Your task to perform on an android device: Find coffee shops on Maps Image 0: 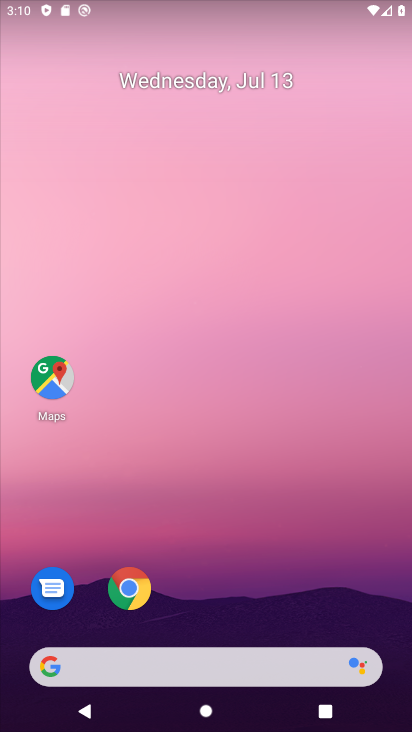
Step 0: drag from (167, 557) to (163, 102)
Your task to perform on an android device: Find coffee shops on Maps Image 1: 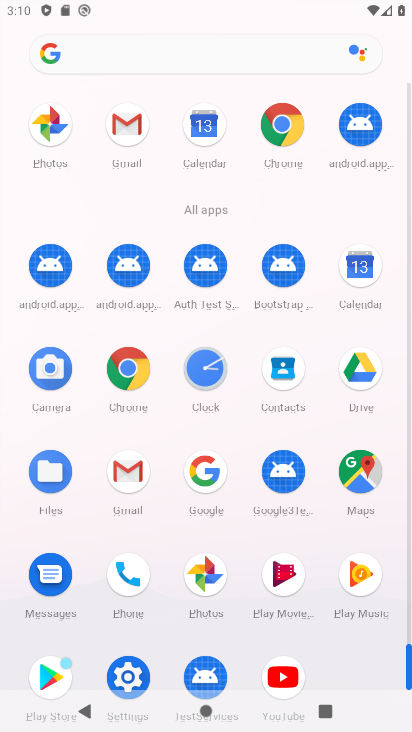
Step 1: click (372, 476)
Your task to perform on an android device: Find coffee shops on Maps Image 2: 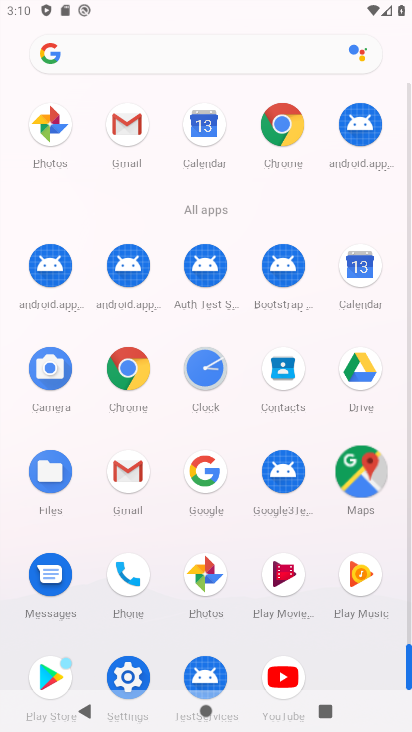
Step 2: click (372, 476)
Your task to perform on an android device: Find coffee shops on Maps Image 3: 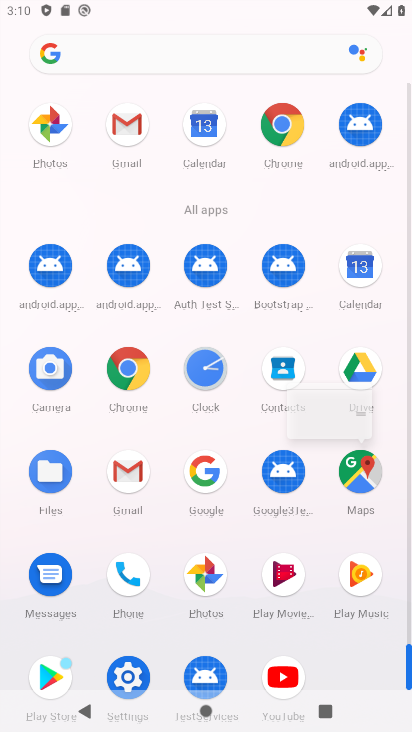
Step 3: click (372, 476)
Your task to perform on an android device: Find coffee shops on Maps Image 4: 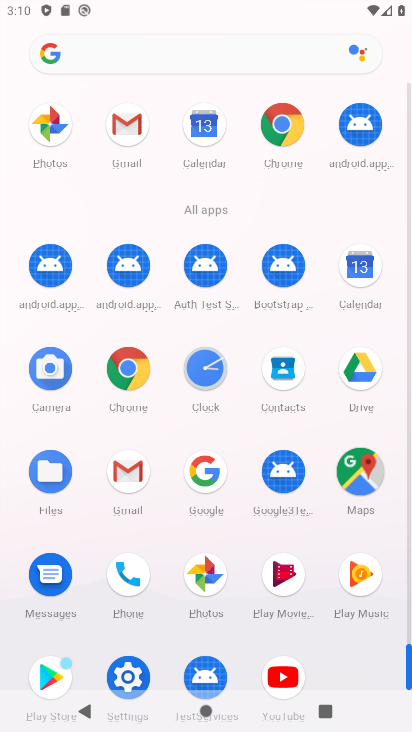
Step 4: click (372, 476)
Your task to perform on an android device: Find coffee shops on Maps Image 5: 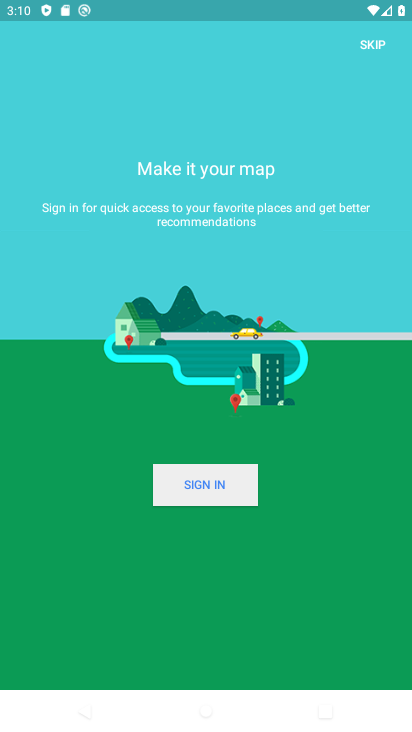
Step 5: click (359, 52)
Your task to perform on an android device: Find coffee shops on Maps Image 6: 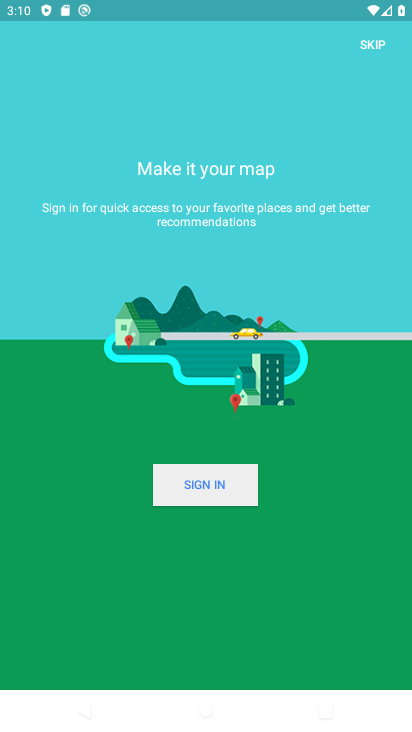
Step 6: click (363, 48)
Your task to perform on an android device: Find coffee shops on Maps Image 7: 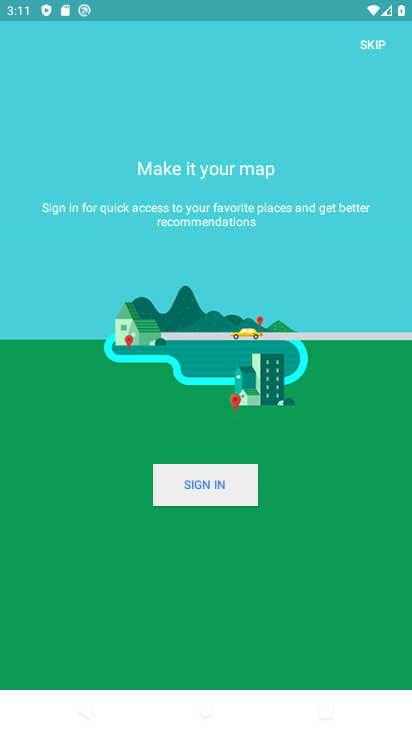
Step 7: click (370, 42)
Your task to perform on an android device: Find coffee shops on Maps Image 8: 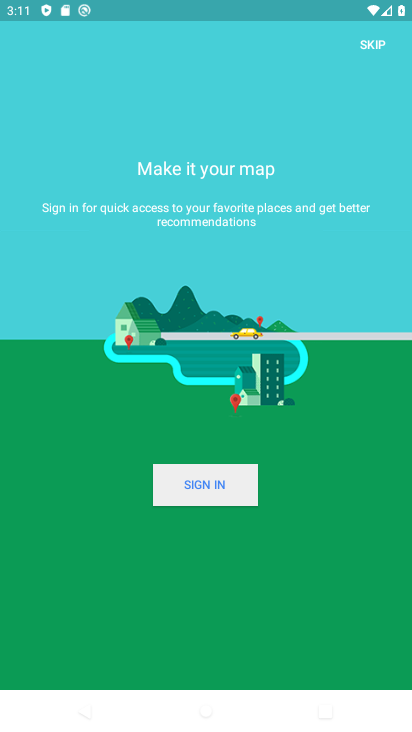
Step 8: click (370, 42)
Your task to perform on an android device: Find coffee shops on Maps Image 9: 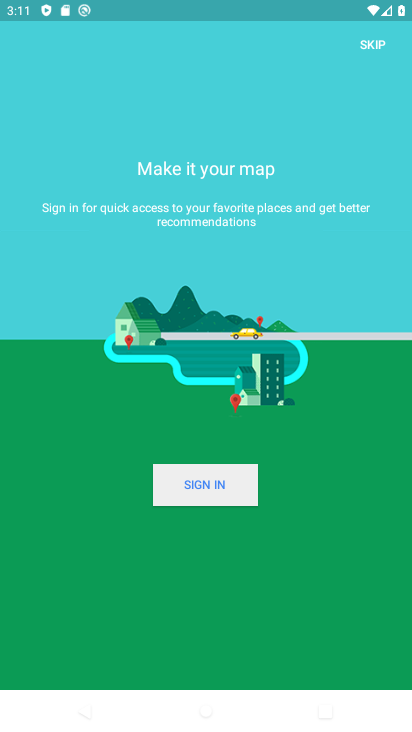
Step 9: click (371, 43)
Your task to perform on an android device: Find coffee shops on Maps Image 10: 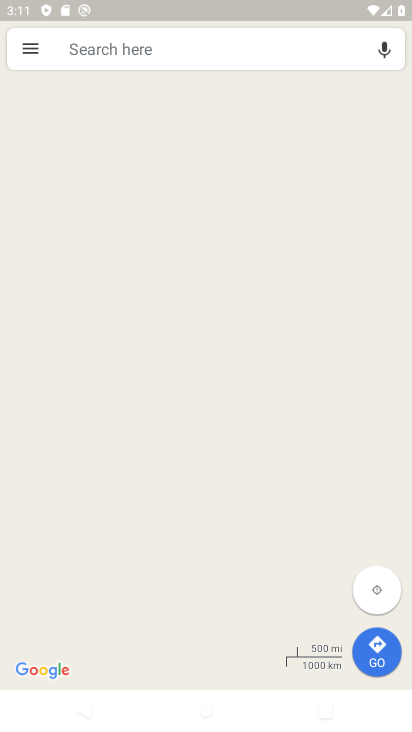
Step 10: click (371, 43)
Your task to perform on an android device: Find coffee shops on Maps Image 11: 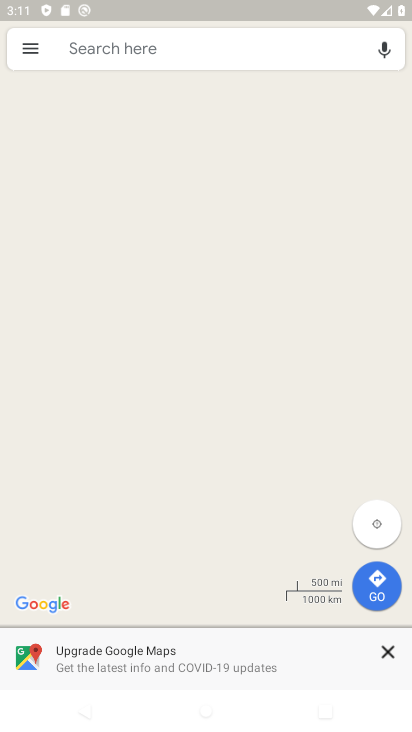
Step 11: click (60, 36)
Your task to perform on an android device: Find coffee shops on Maps Image 12: 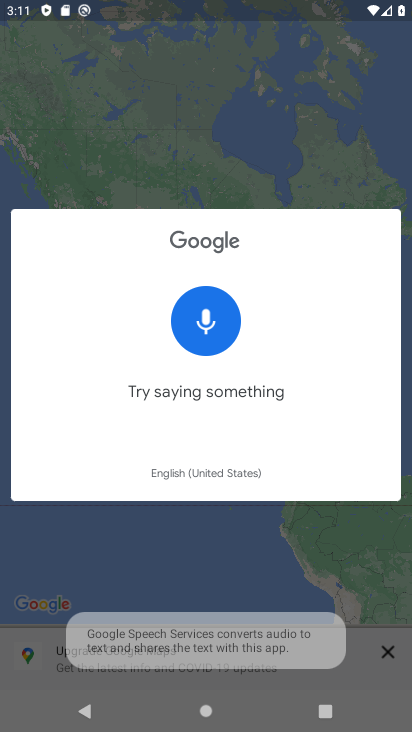
Step 12: click (121, 126)
Your task to perform on an android device: Find coffee shops on Maps Image 13: 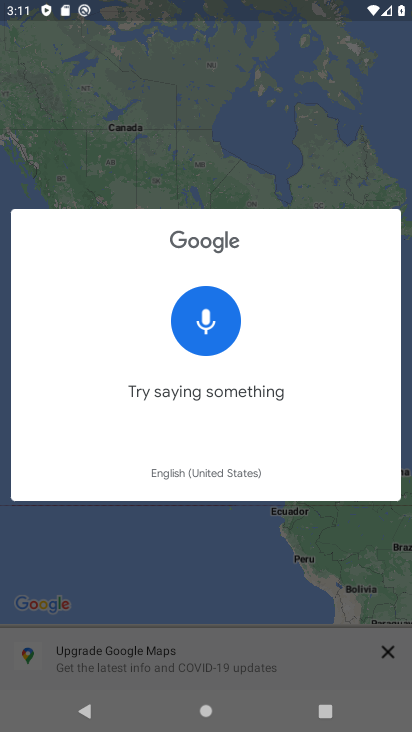
Step 13: click (129, 127)
Your task to perform on an android device: Find coffee shops on Maps Image 14: 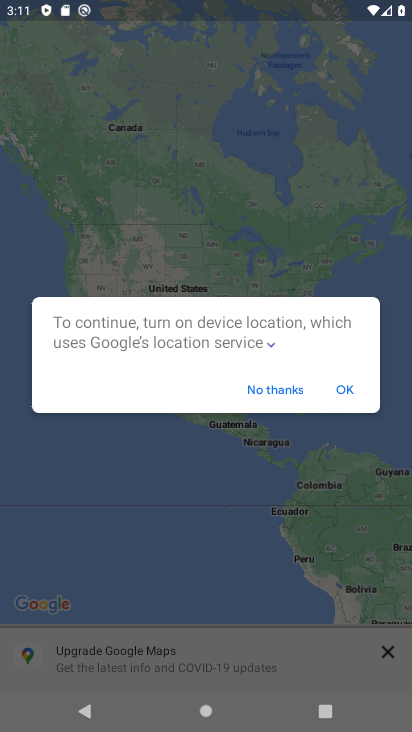
Step 14: click (345, 381)
Your task to perform on an android device: Find coffee shops on Maps Image 15: 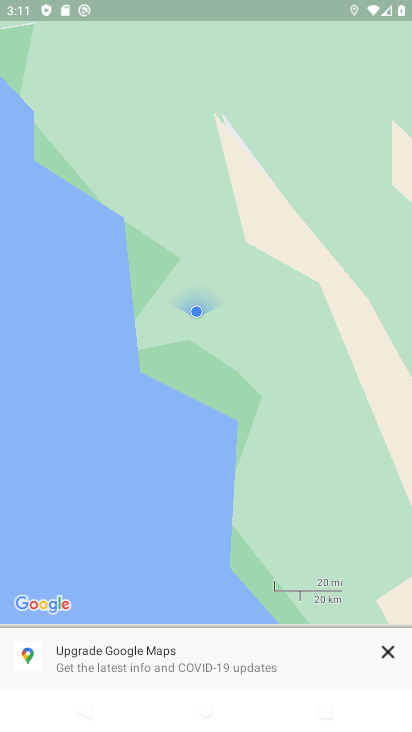
Step 15: drag from (195, 372) to (173, 627)
Your task to perform on an android device: Find coffee shops on Maps Image 16: 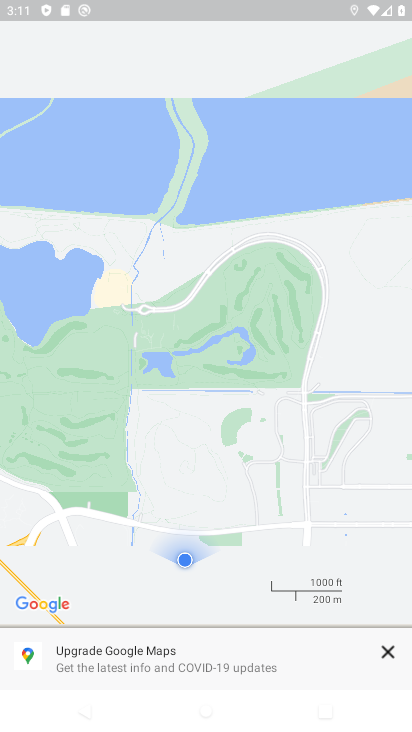
Step 16: drag from (139, 261) to (145, 435)
Your task to perform on an android device: Find coffee shops on Maps Image 17: 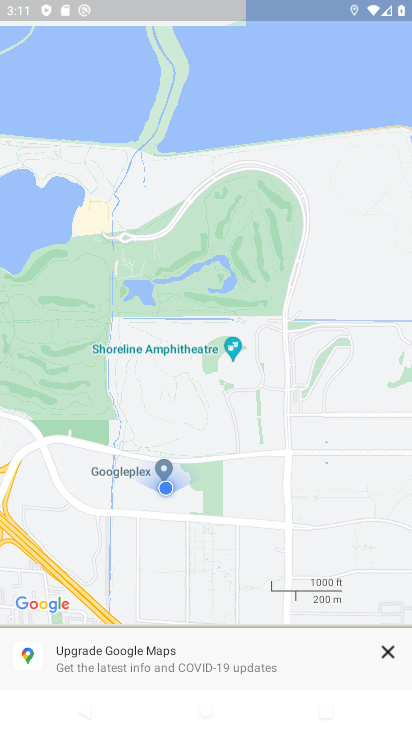
Step 17: click (127, 66)
Your task to perform on an android device: Find coffee shops on Maps Image 18: 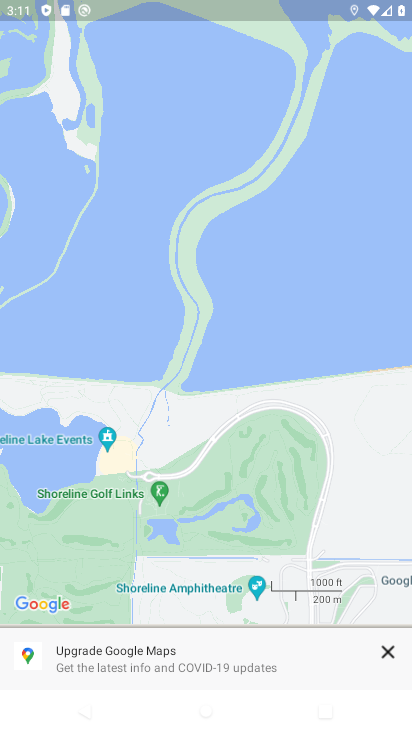
Step 18: click (128, 129)
Your task to perform on an android device: Find coffee shops on Maps Image 19: 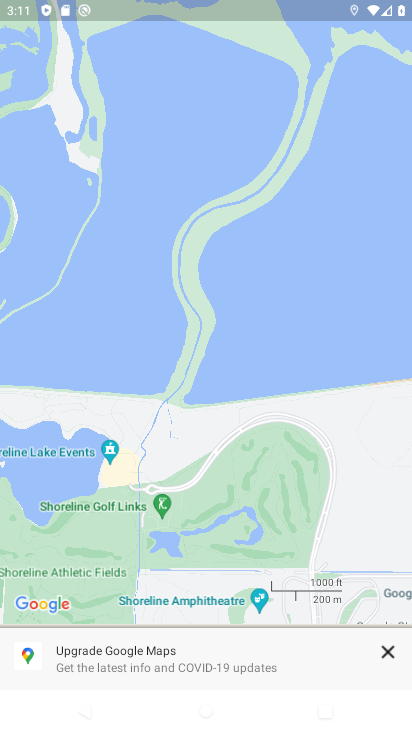
Step 19: click (135, 171)
Your task to perform on an android device: Find coffee shops on Maps Image 20: 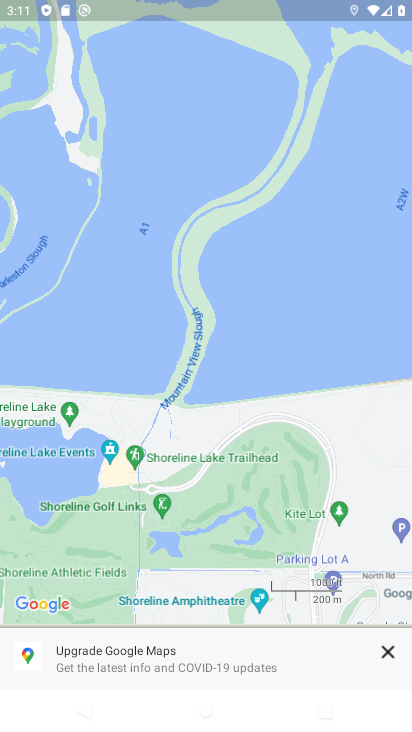
Step 20: task complete